Your task to perform on an android device: Go to internet settings Image 0: 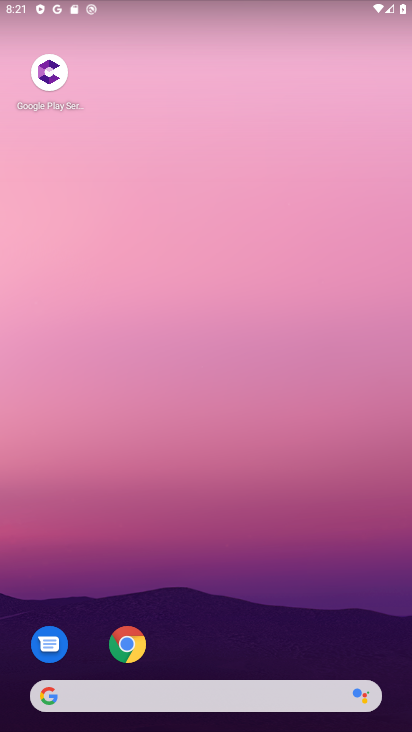
Step 0: drag from (287, 689) to (253, 240)
Your task to perform on an android device: Go to internet settings Image 1: 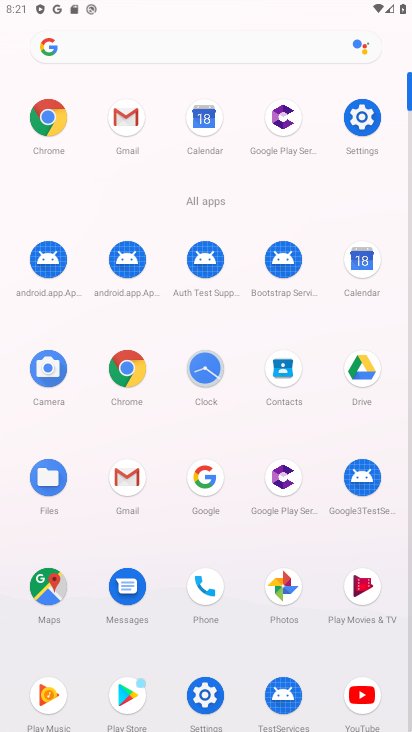
Step 1: click (367, 135)
Your task to perform on an android device: Go to internet settings Image 2: 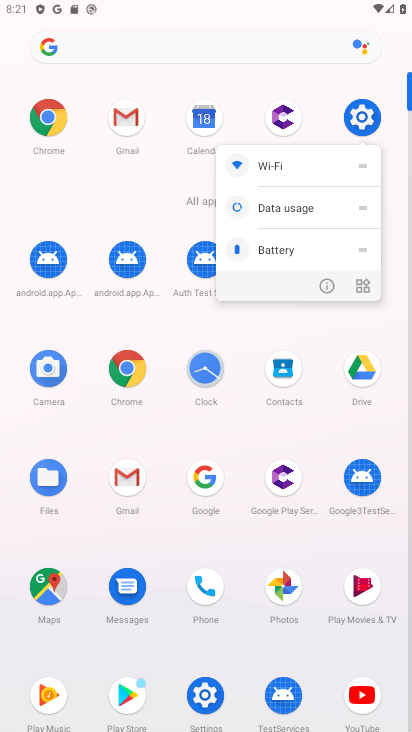
Step 2: click (367, 135)
Your task to perform on an android device: Go to internet settings Image 3: 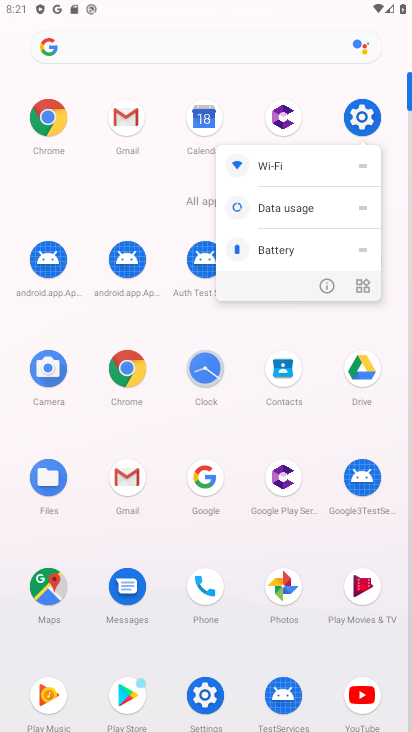
Step 3: click (367, 135)
Your task to perform on an android device: Go to internet settings Image 4: 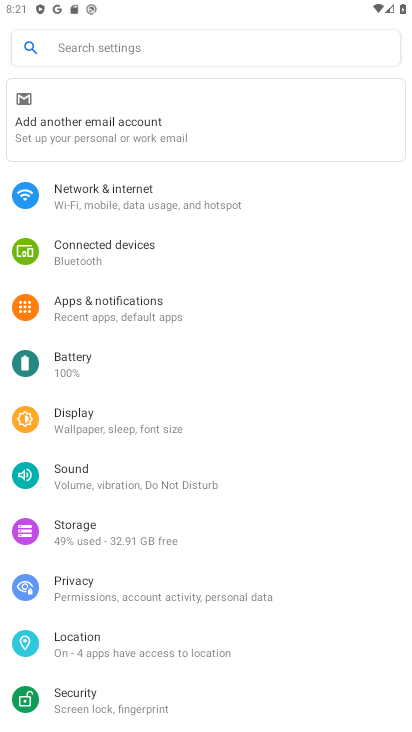
Step 4: click (162, 193)
Your task to perform on an android device: Go to internet settings Image 5: 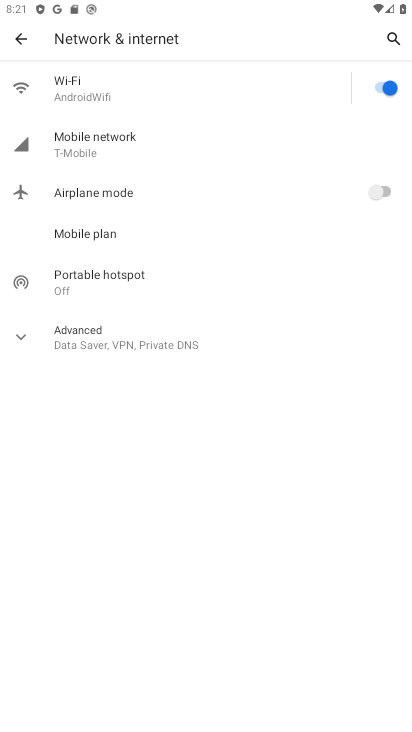
Step 5: task complete